Your task to perform on an android device: empty trash in the gmail app Image 0: 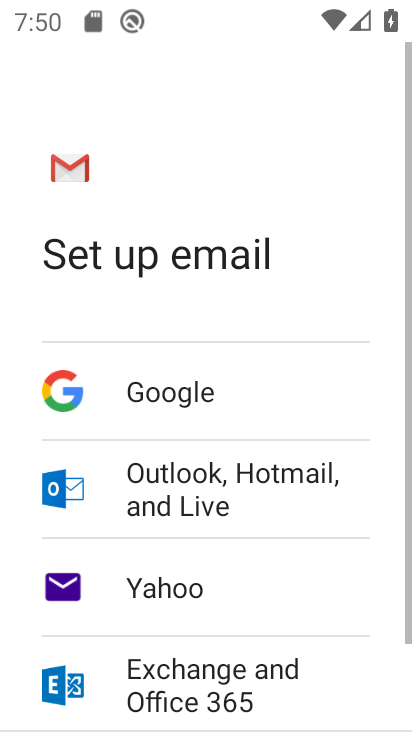
Step 0: press home button
Your task to perform on an android device: empty trash in the gmail app Image 1: 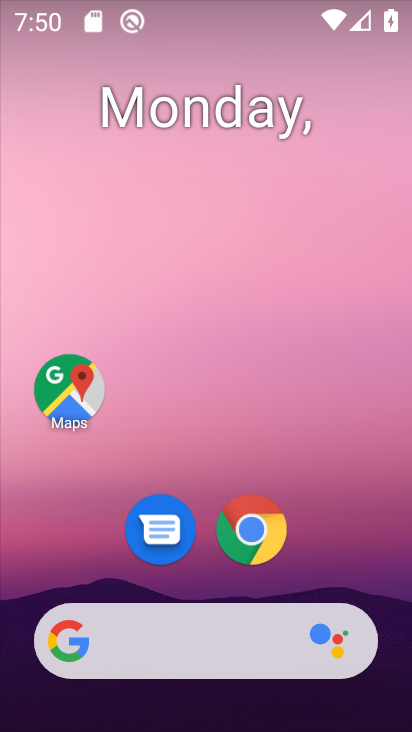
Step 1: drag from (210, 584) to (224, 225)
Your task to perform on an android device: empty trash in the gmail app Image 2: 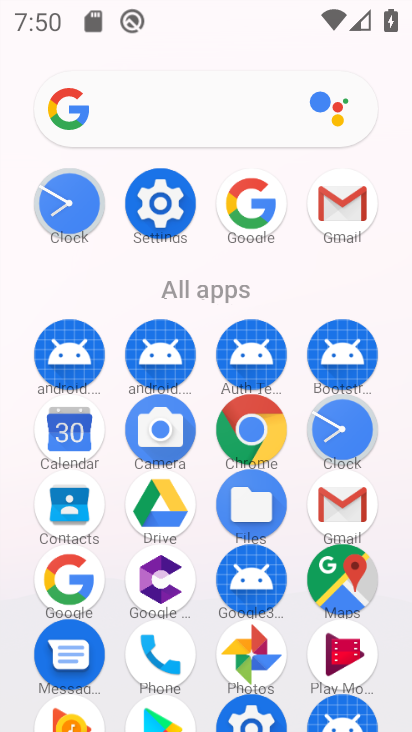
Step 2: click (344, 191)
Your task to perform on an android device: empty trash in the gmail app Image 3: 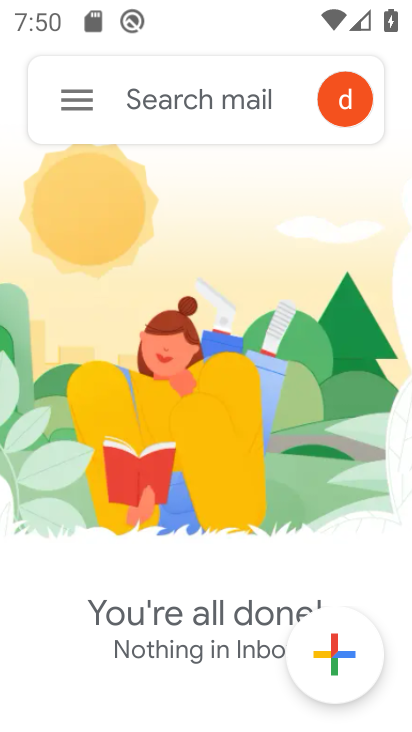
Step 3: click (81, 103)
Your task to perform on an android device: empty trash in the gmail app Image 4: 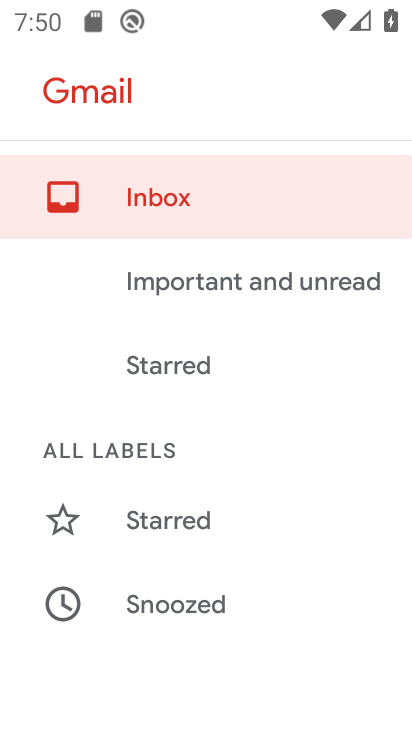
Step 4: drag from (207, 617) to (226, 172)
Your task to perform on an android device: empty trash in the gmail app Image 5: 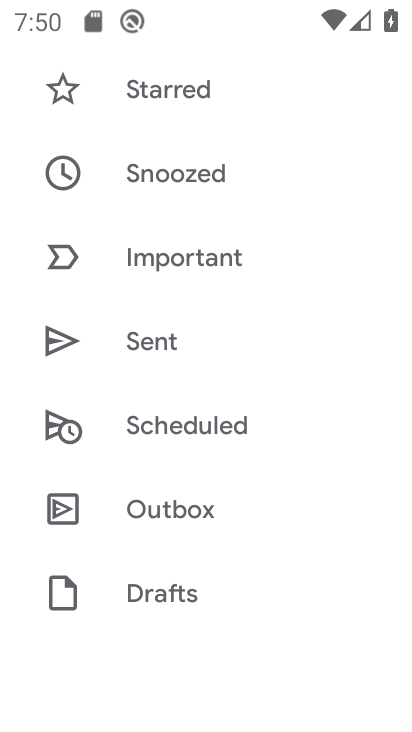
Step 5: drag from (201, 585) to (202, 290)
Your task to perform on an android device: empty trash in the gmail app Image 6: 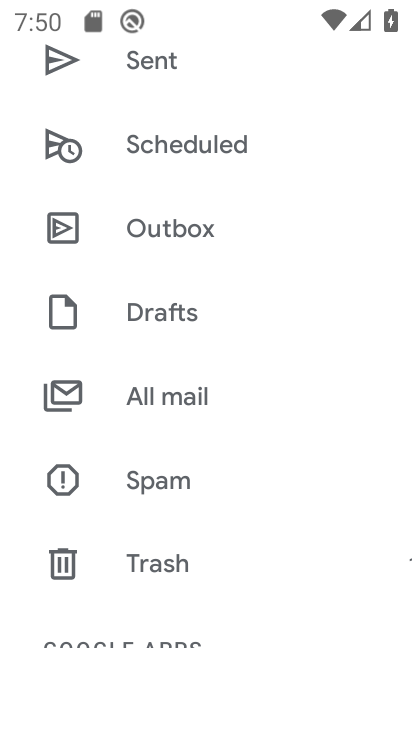
Step 6: click (183, 567)
Your task to perform on an android device: empty trash in the gmail app Image 7: 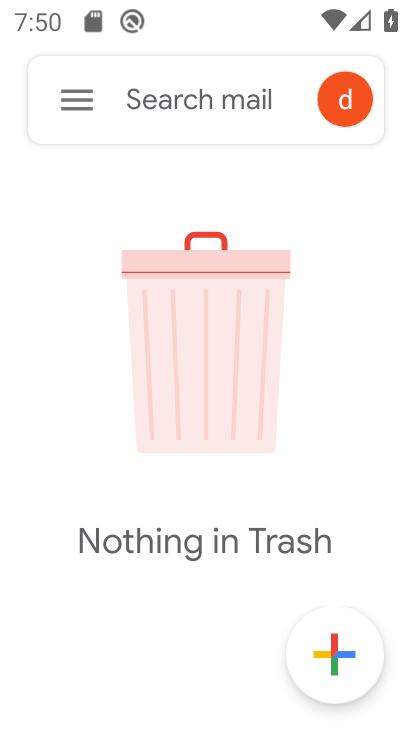
Step 7: task complete